Your task to perform on an android device: turn off priority inbox in the gmail app Image 0: 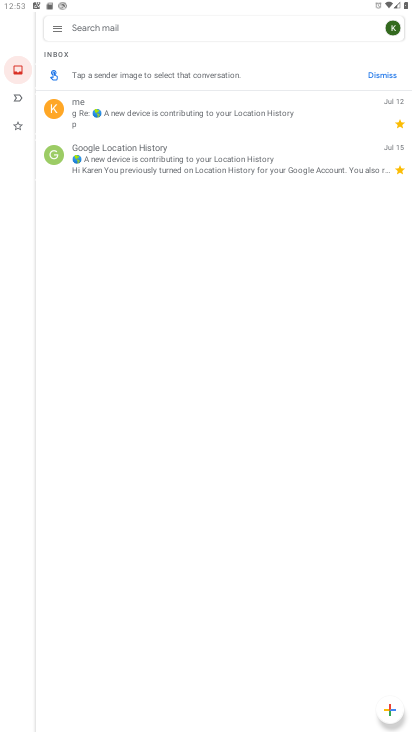
Step 0: click (47, 28)
Your task to perform on an android device: turn off priority inbox in the gmail app Image 1: 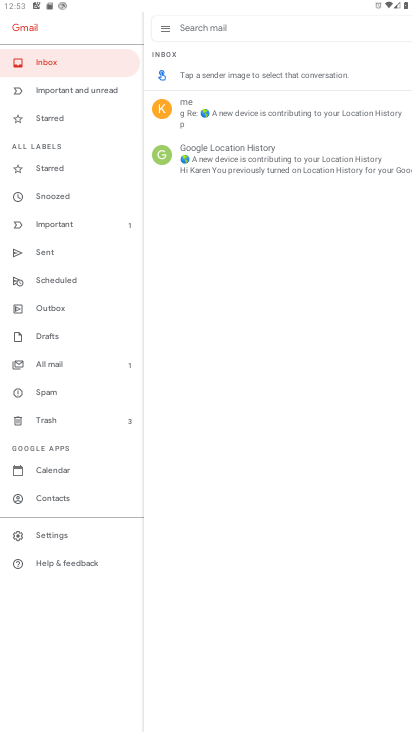
Step 1: click (77, 535)
Your task to perform on an android device: turn off priority inbox in the gmail app Image 2: 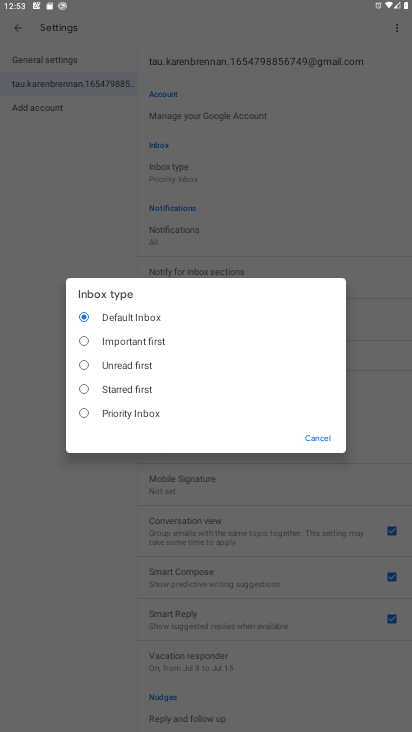
Step 2: click (30, 428)
Your task to perform on an android device: turn off priority inbox in the gmail app Image 3: 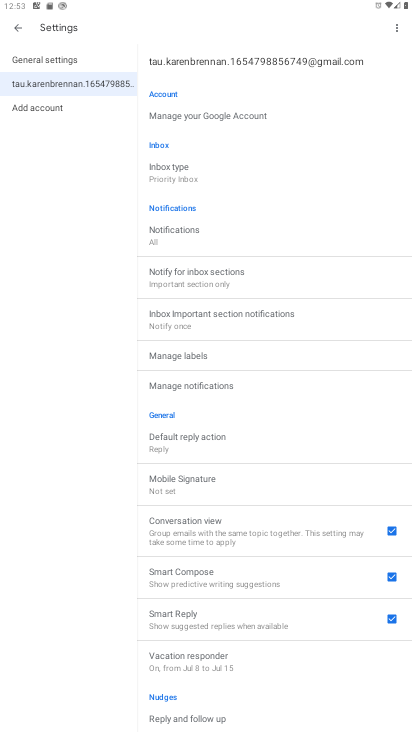
Step 3: click (151, 175)
Your task to perform on an android device: turn off priority inbox in the gmail app Image 4: 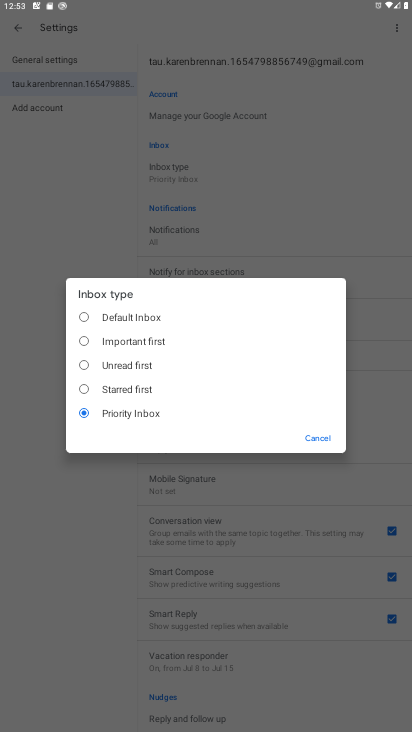
Step 4: click (124, 313)
Your task to perform on an android device: turn off priority inbox in the gmail app Image 5: 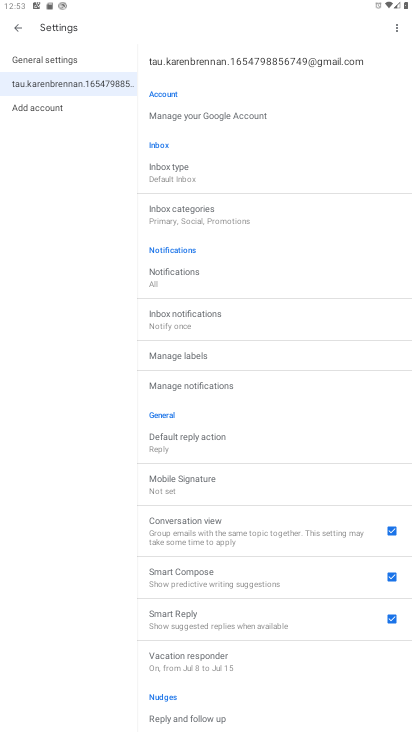
Step 5: task complete